Your task to perform on an android device: Open the calendar app, open the side menu, and click the "Day" option Image 0: 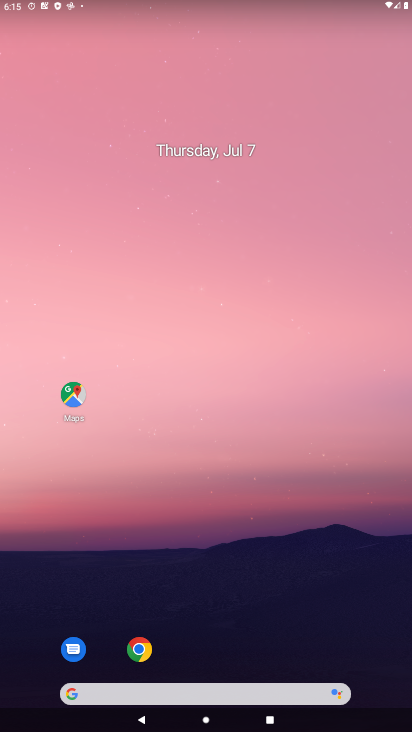
Step 0: drag from (375, 687) to (269, 123)
Your task to perform on an android device: Open the calendar app, open the side menu, and click the "Day" option Image 1: 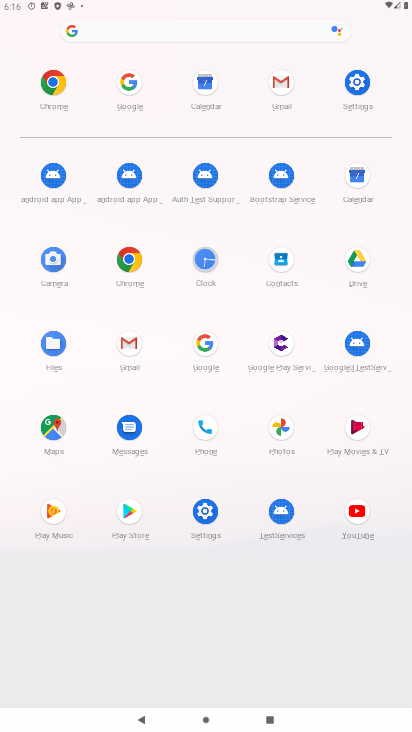
Step 1: click (358, 170)
Your task to perform on an android device: Open the calendar app, open the side menu, and click the "Day" option Image 2: 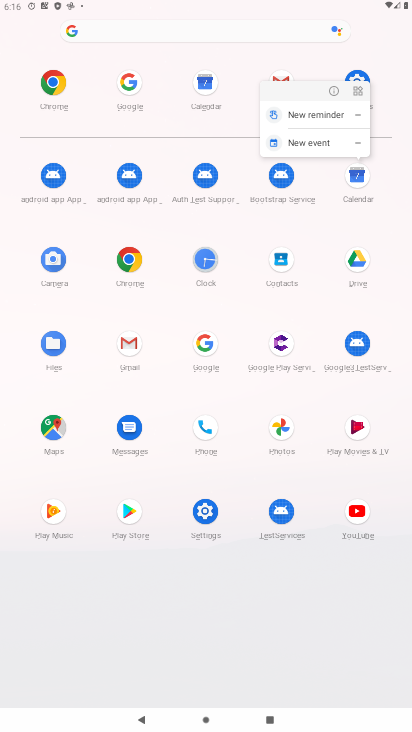
Step 2: click (358, 170)
Your task to perform on an android device: Open the calendar app, open the side menu, and click the "Day" option Image 3: 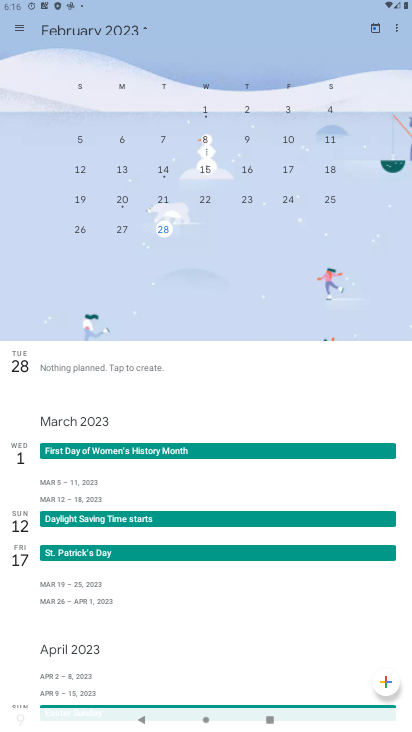
Step 3: click (14, 26)
Your task to perform on an android device: Open the calendar app, open the side menu, and click the "Day" option Image 4: 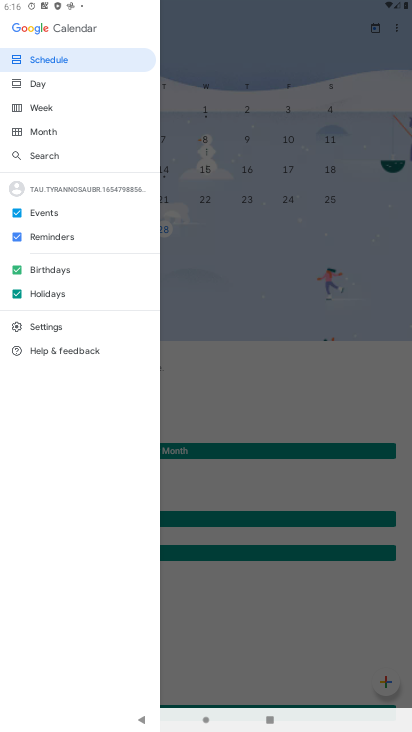
Step 4: click (45, 83)
Your task to perform on an android device: Open the calendar app, open the side menu, and click the "Day" option Image 5: 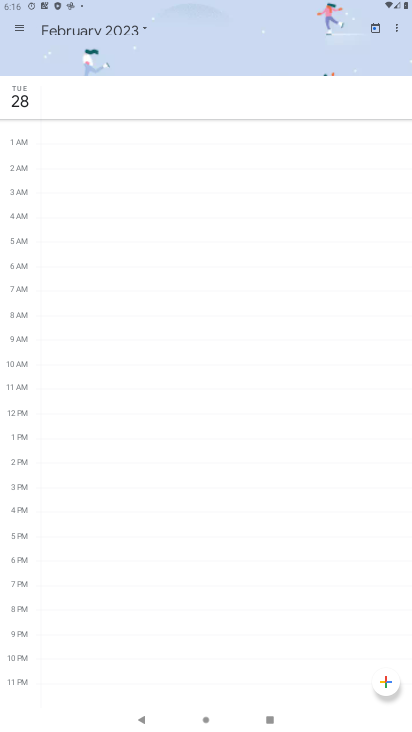
Step 5: task complete